Your task to perform on an android device: Open calendar and show me the first week of next month Image 0: 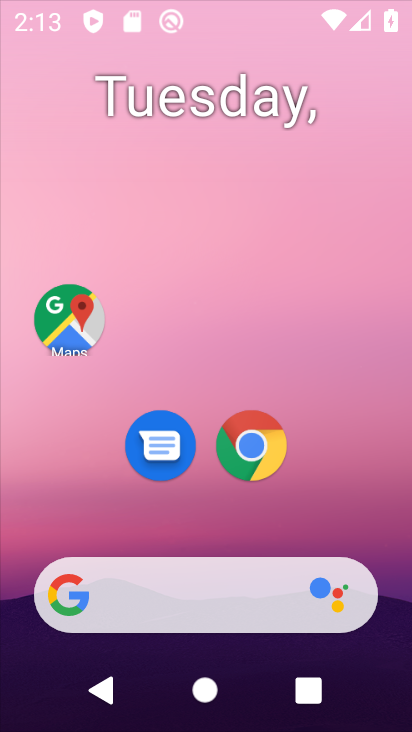
Step 0: click (384, 74)
Your task to perform on an android device: Open calendar and show me the first week of next month Image 1: 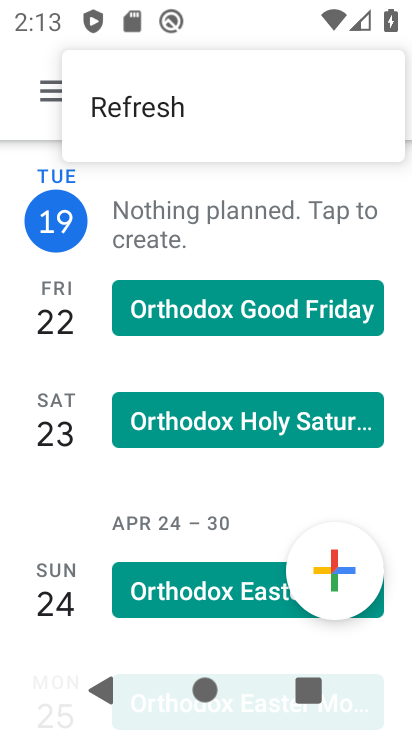
Step 1: press home button
Your task to perform on an android device: Open calendar and show me the first week of next month Image 2: 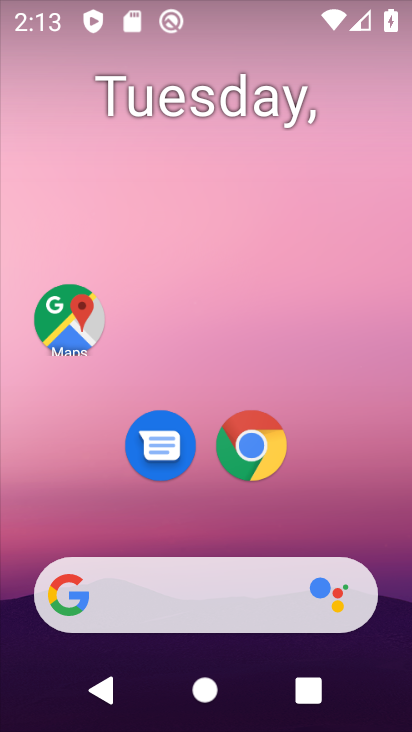
Step 2: drag from (350, 283) to (346, 63)
Your task to perform on an android device: Open calendar and show me the first week of next month Image 3: 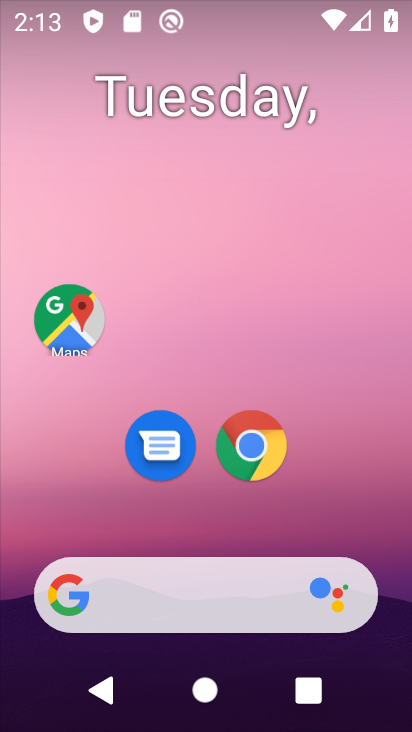
Step 3: drag from (364, 305) to (394, 2)
Your task to perform on an android device: Open calendar and show me the first week of next month Image 4: 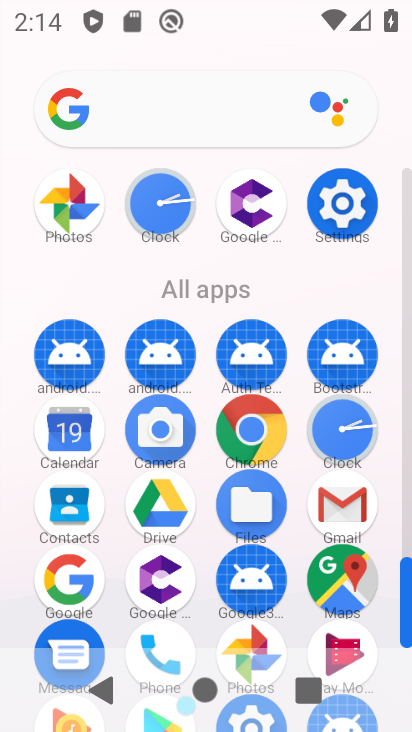
Step 4: click (76, 427)
Your task to perform on an android device: Open calendar and show me the first week of next month Image 5: 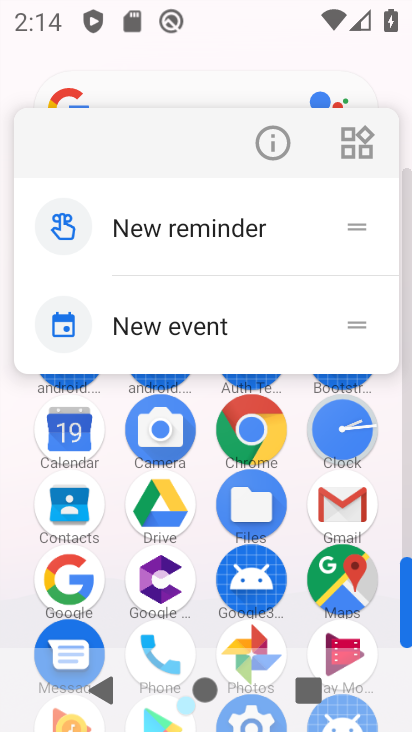
Step 5: click (80, 439)
Your task to perform on an android device: Open calendar and show me the first week of next month Image 6: 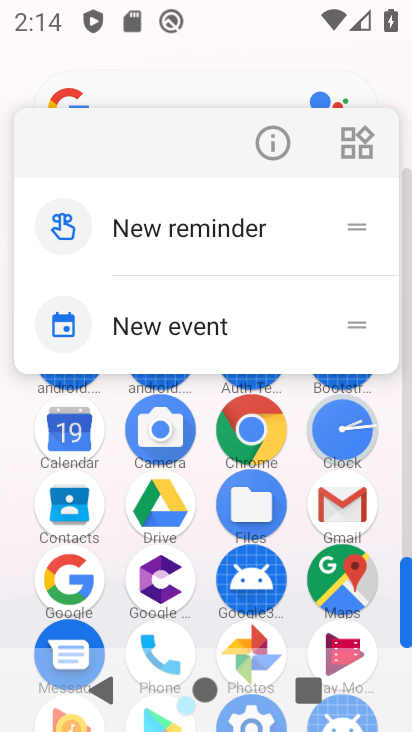
Step 6: click (78, 433)
Your task to perform on an android device: Open calendar and show me the first week of next month Image 7: 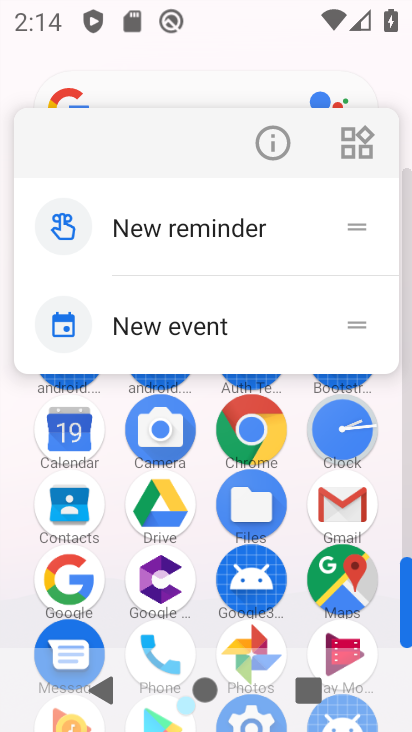
Step 7: click (80, 449)
Your task to perform on an android device: Open calendar and show me the first week of next month Image 8: 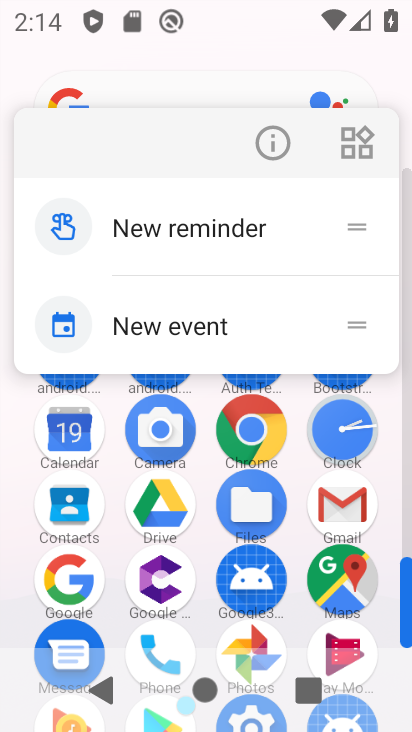
Step 8: click (80, 447)
Your task to perform on an android device: Open calendar and show me the first week of next month Image 9: 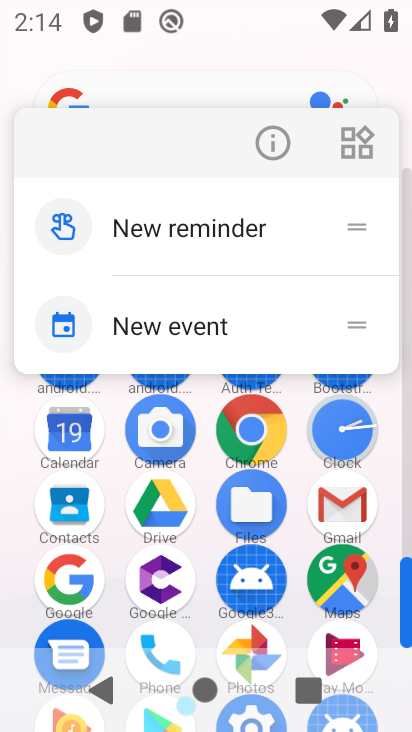
Step 9: click (79, 445)
Your task to perform on an android device: Open calendar and show me the first week of next month Image 10: 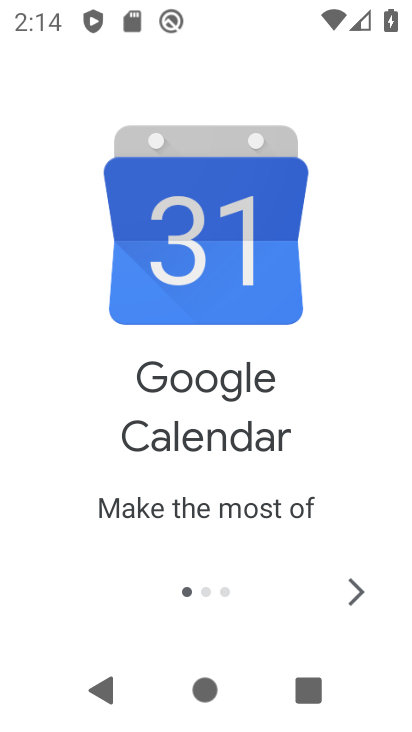
Step 10: click (361, 577)
Your task to perform on an android device: Open calendar and show me the first week of next month Image 11: 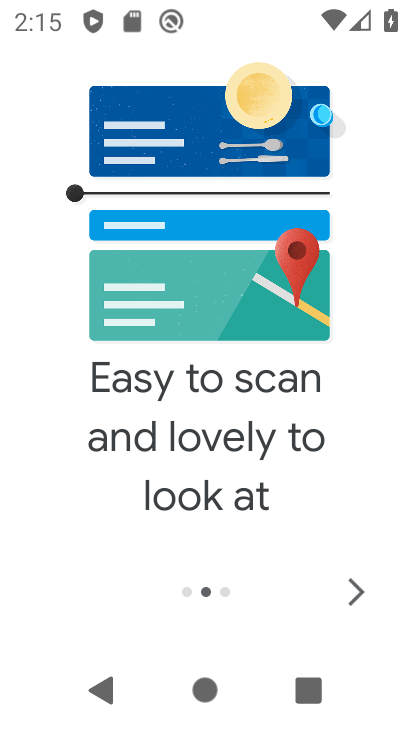
Step 11: click (364, 579)
Your task to perform on an android device: Open calendar and show me the first week of next month Image 12: 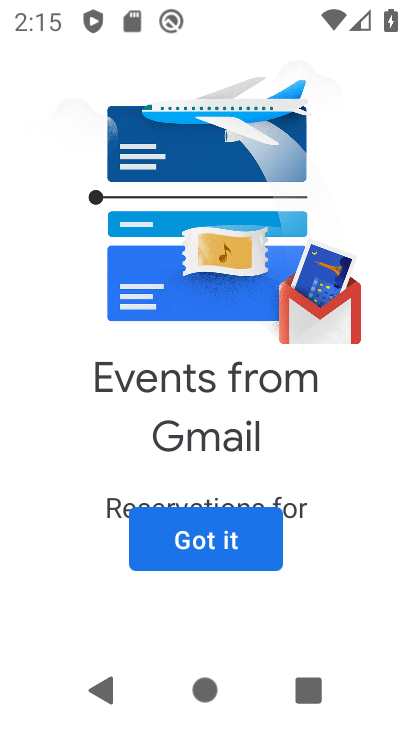
Step 12: click (232, 541)
Your task to perform on an android device: Open calendar and show me the first week of next month Image 13: 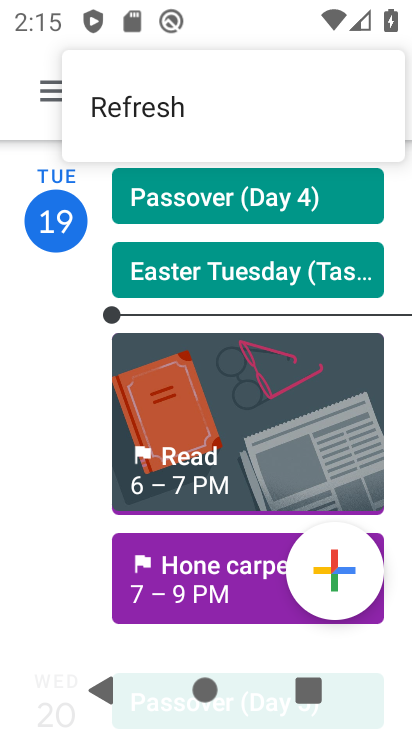
Step 13: click (49, 81)
Your task to perform on an android device: Open calendar and show me the first week of next month Image 14: 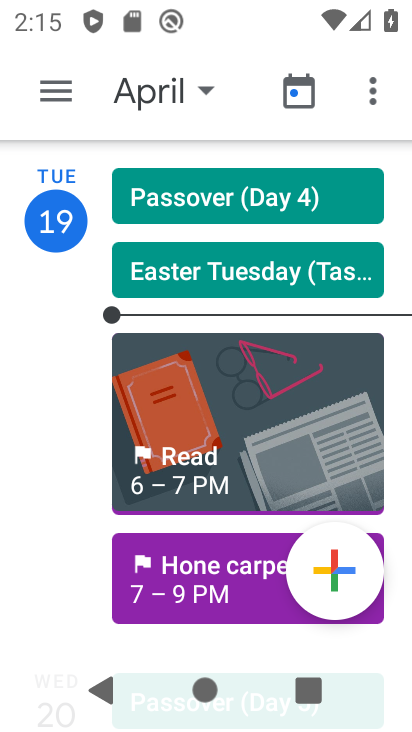
Step 14: click (50, 81)
Your task to perform on an android device: Open calendar and show me the first week of next month Image 15: 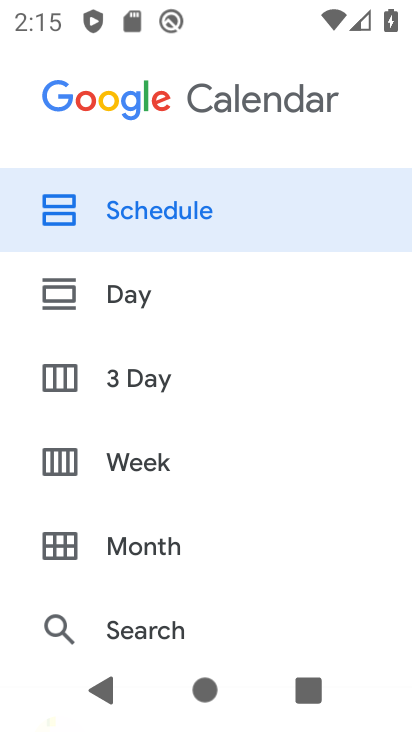
Step 15: click (158, 100)
Your task to perform on an android device: Open calendar and show me the first week of next month Image 16: 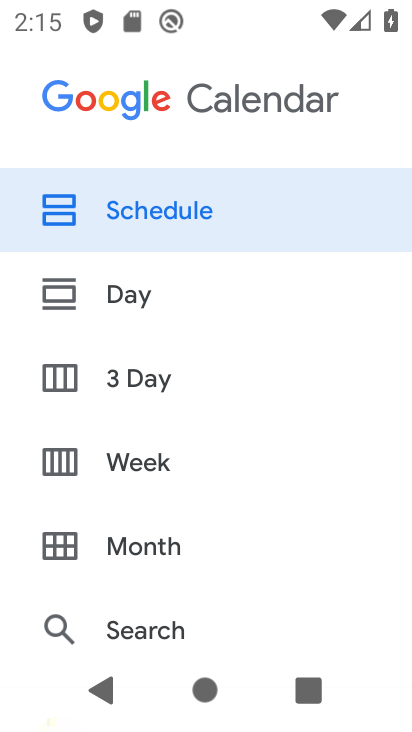
Step 16: click (120, 682)
Your task to perform on an android device: Open calendar and show me the first week of next month Image 17: 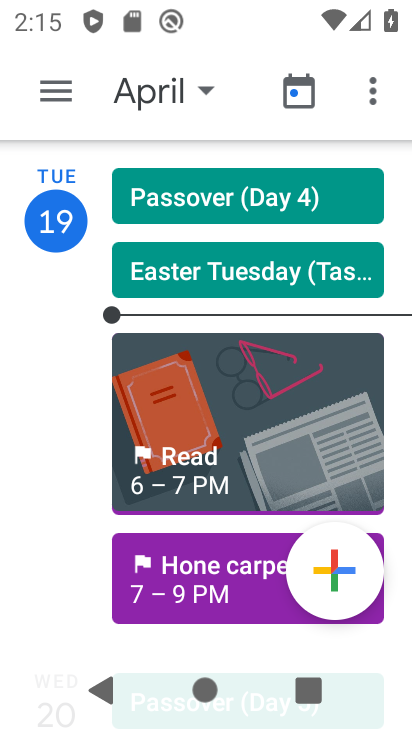
Step 17: click (167, 97)
Your task to perform on an android device: Open calendar and show me the first week of next month Image 18: 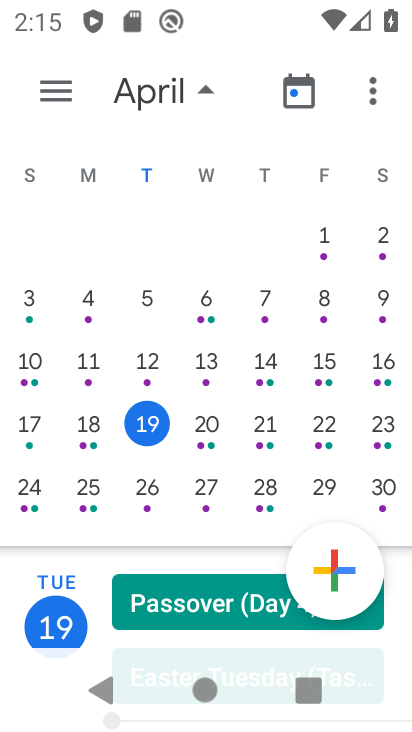
Step 18: drag from (357, 366) to (32, 456)
Your task to perform on an android device: Open calendar and show me the first week of next month Image 19: 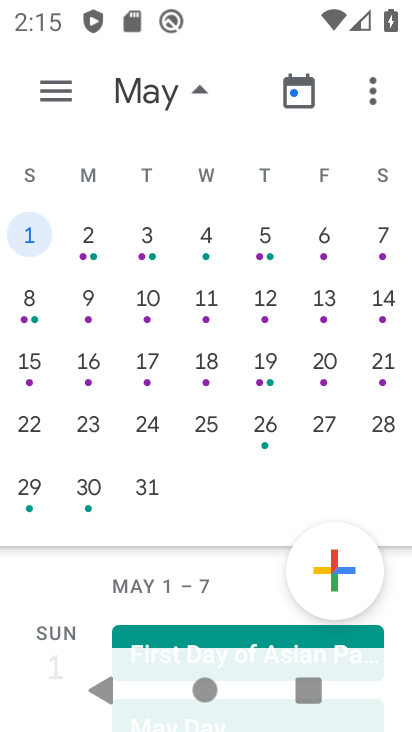
Step 19: click (309, 246)
Your task to perform on an android device: Open calendar and show me the first week of next month Image 20: 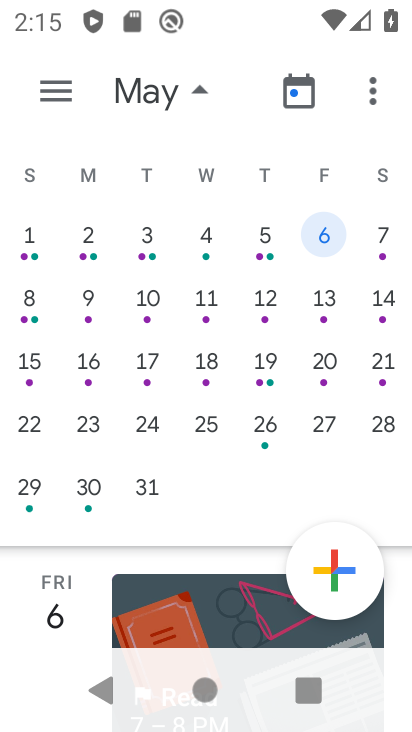
Step 20: task complete